Your task to perform on an android device: Open Android settings Image 0: 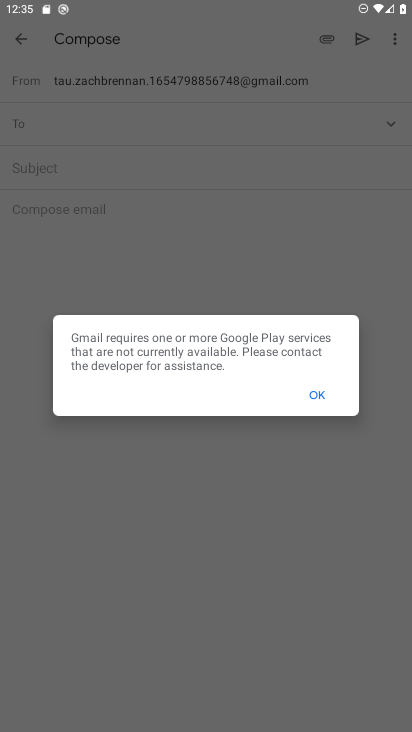
Step 0: press home button
Your task to perform on an android device: Open Android settings Image 1: 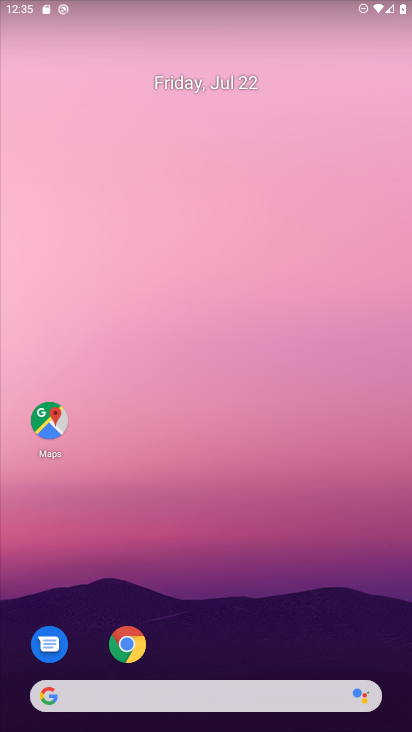
Step 1: drag from (233, 610) to (199, 235)
Your task to perform on an android device: Open Android settings Image 2: 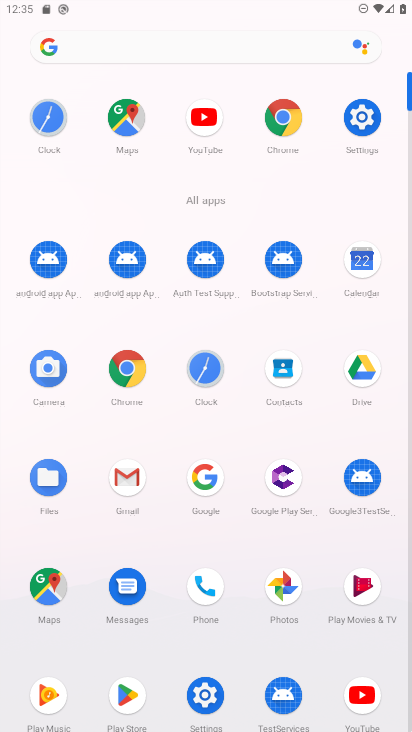
Step 2: click (368, 133)
Your task to perform on an android device: Open Android settings Image 3: 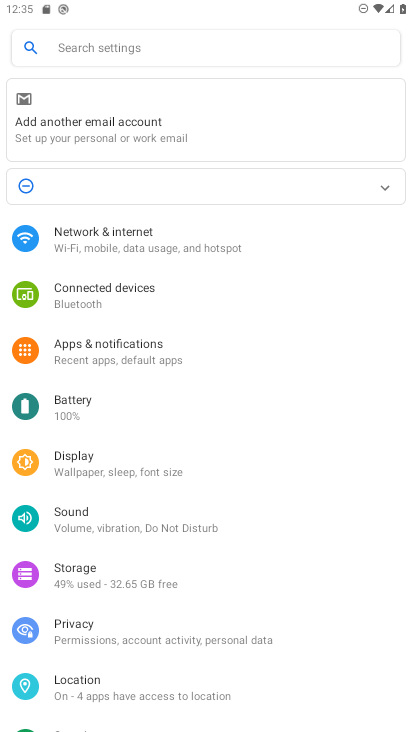
Step 3: task complete